Your task to perform on an android device: Open Wikipedia Image 0: 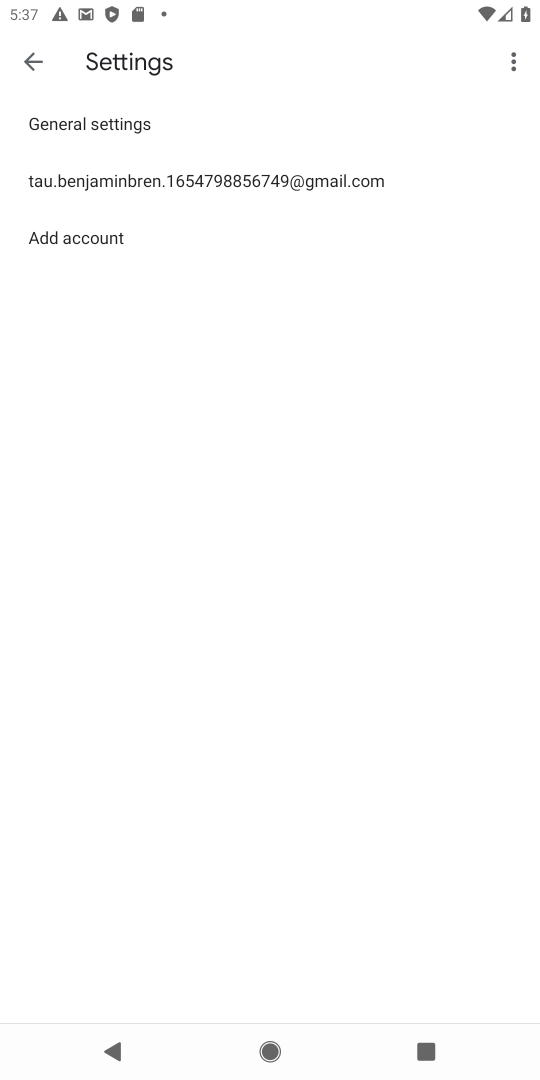
Step 0: press home button
Your task to perform on an android device: Open Wikipedia Image 1: 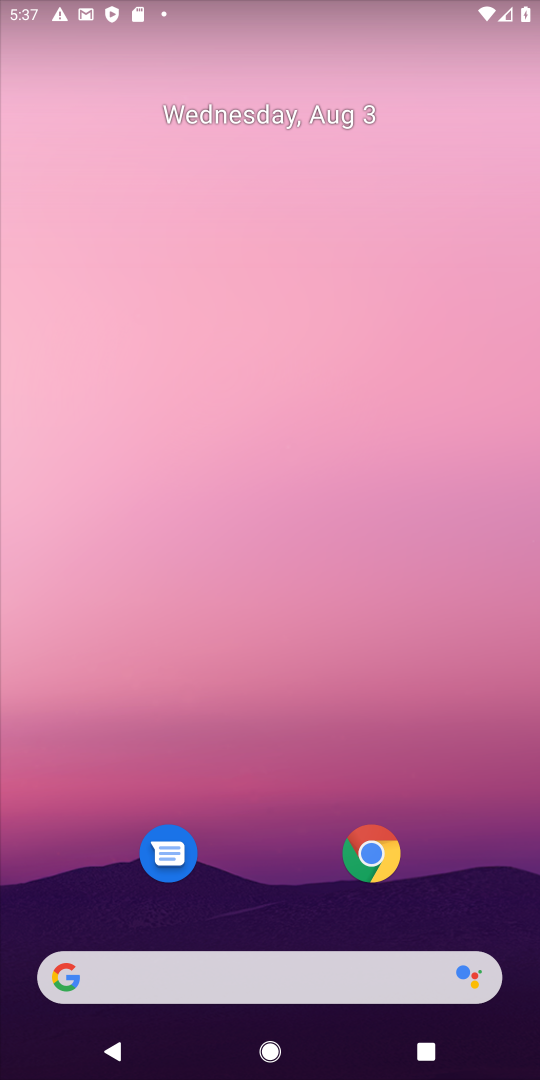
Step 1: click (386, 850)
Your task to perform on an android device: Open Wikipedia Image 2: 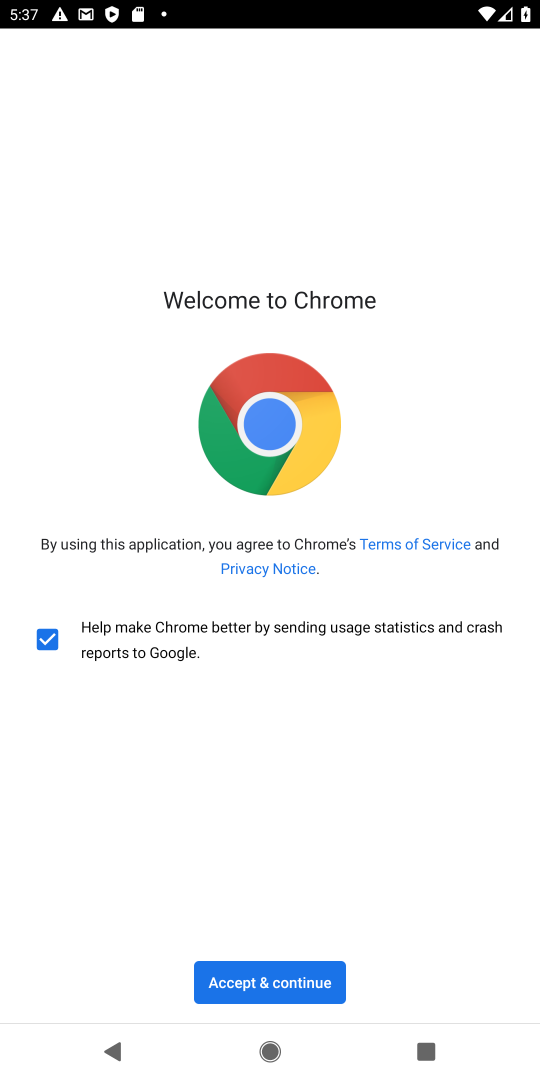
Step 2: click (309, 964)
Your task to perform on an android device: Open Wikipedia Image 3: 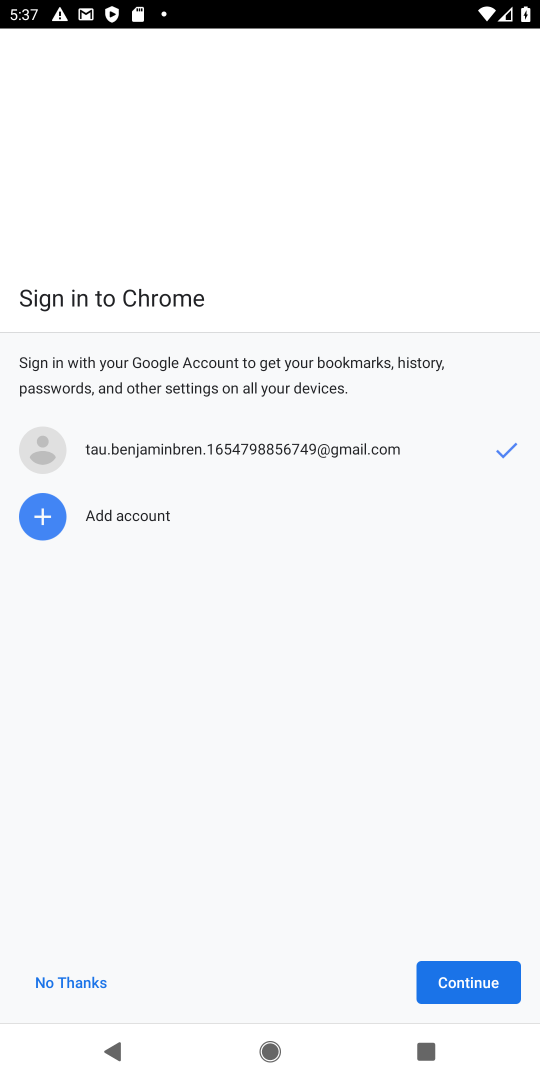
Step 3: click (447, 979)
Your task to perform on an android device: Open Wikipedia Image 4: 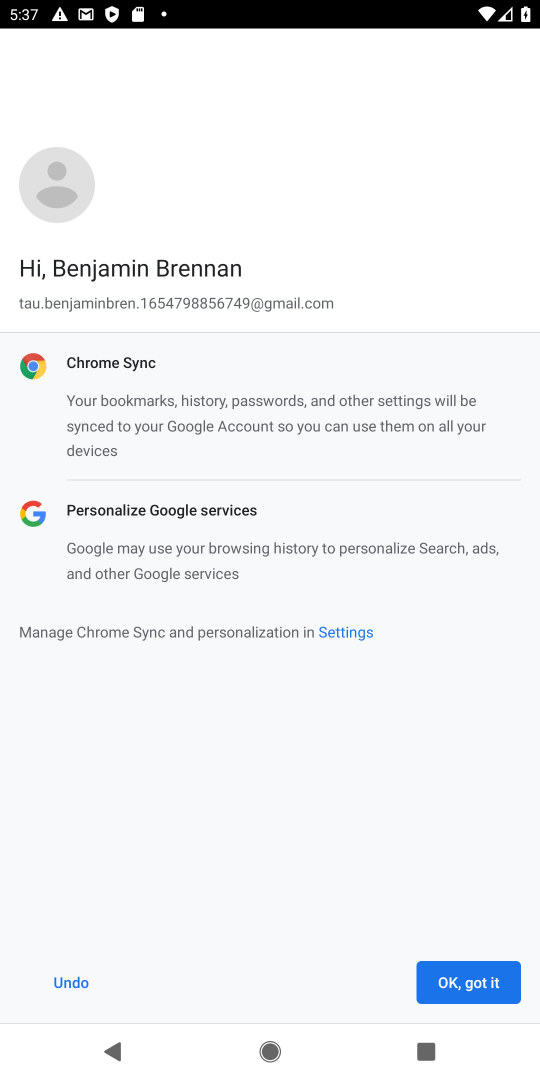
Step 4: click (447, 979)
Your task to perform on an android device: Open Wikipedia Image 5: 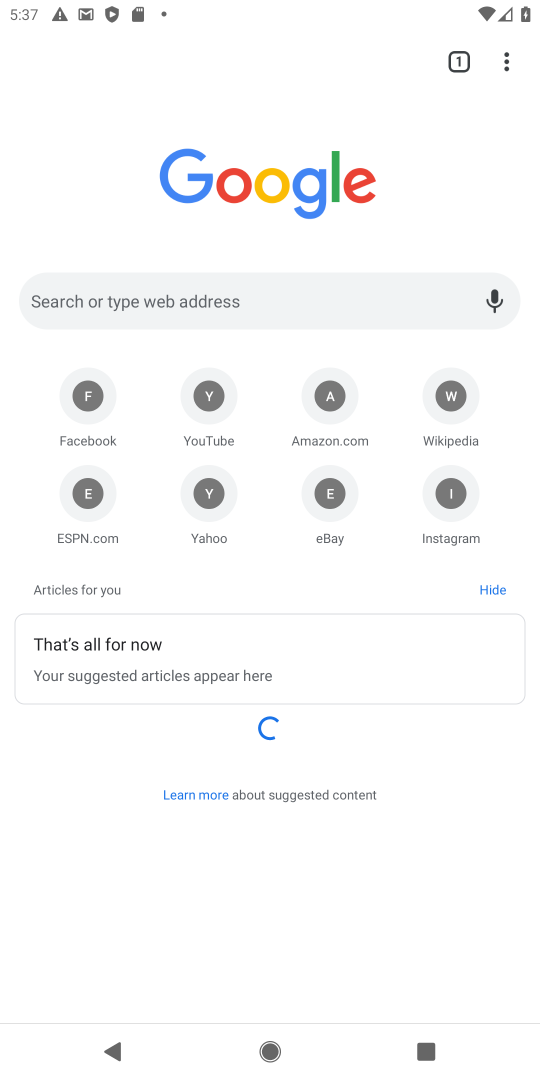
Step 5: click (446, 401)
Your task to perform on an android device: Open Wikipedia Image 6: 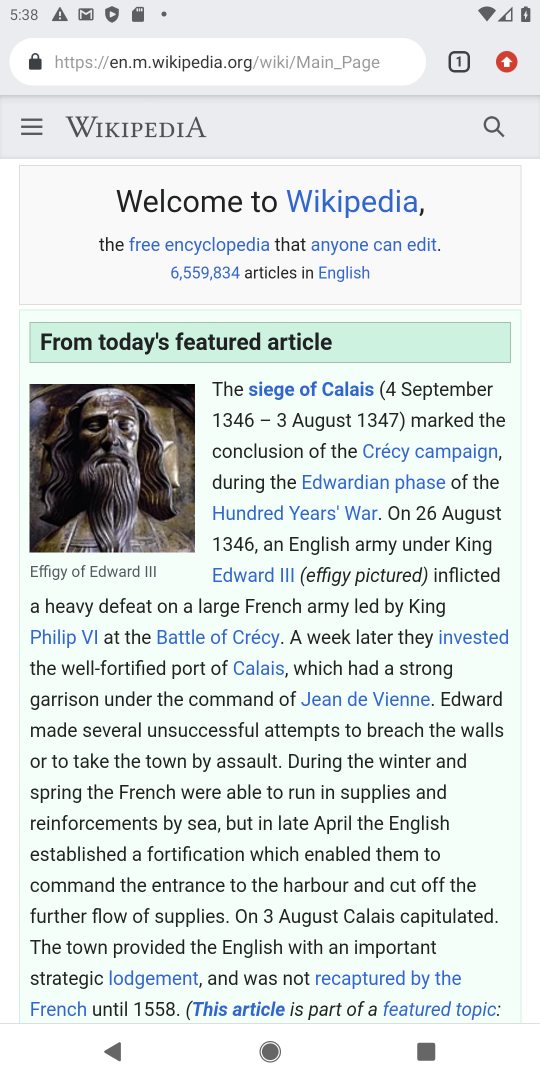
Step 6: task complete